Your task to perform on an android device: Go to sound settings Image 0: 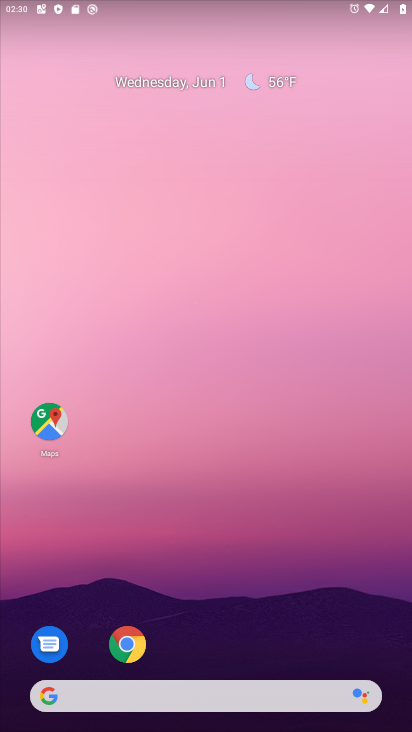
Step 0: drag from (197, 688) to (195, 234)
Your task to perform on an android device: Go to sound settings Image 1: 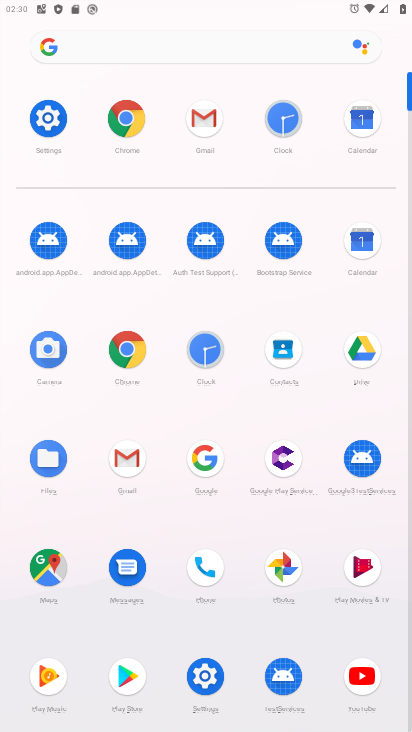
Step 1: click (44, 120)
Your task to perform on an android device: Go to sound settings Image 2: 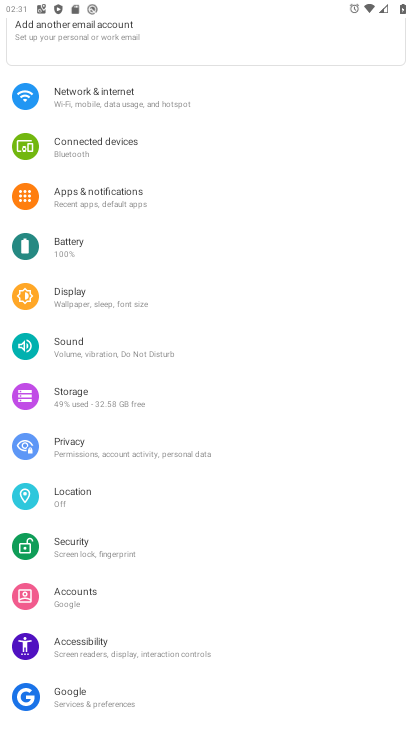
Step 2: task complete